Your task to perform on an android device: What's the weather? Image 0: 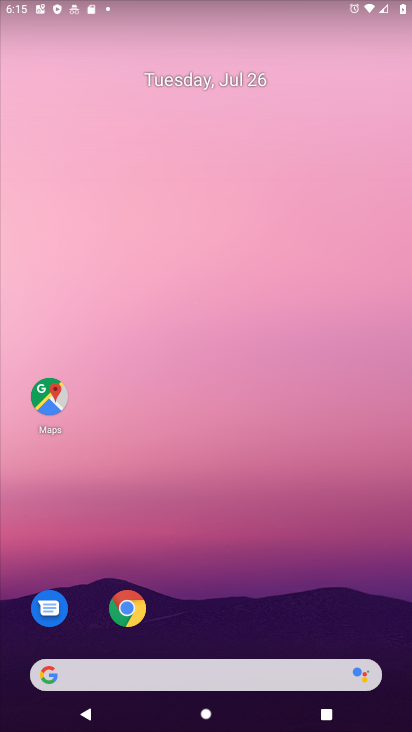
Step 0: press home button
Your task to perform on an android device: What's the weather? Image 1: 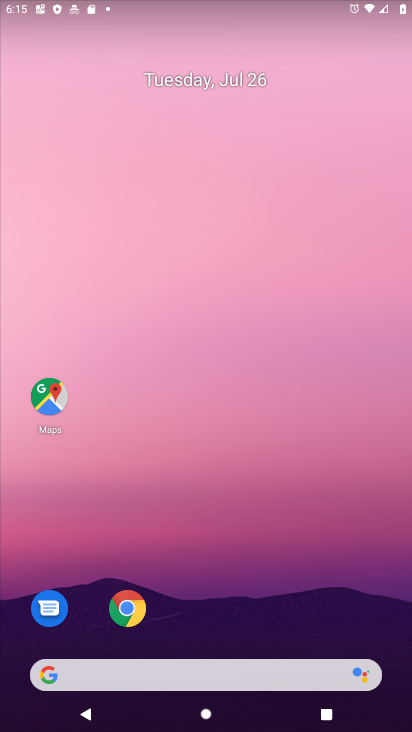
Step 1: click (49, 678)
Your task to perform on an android device: What's the weather? Image 2: 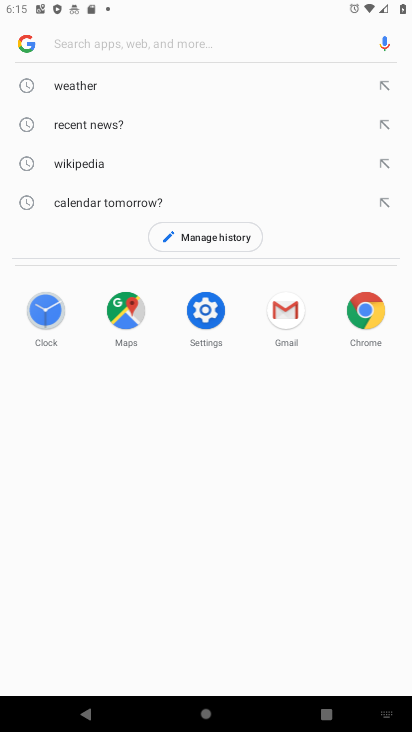
Step 2: click (70, 85)
Your task to perform on an android device: What's the weather? Image 3: 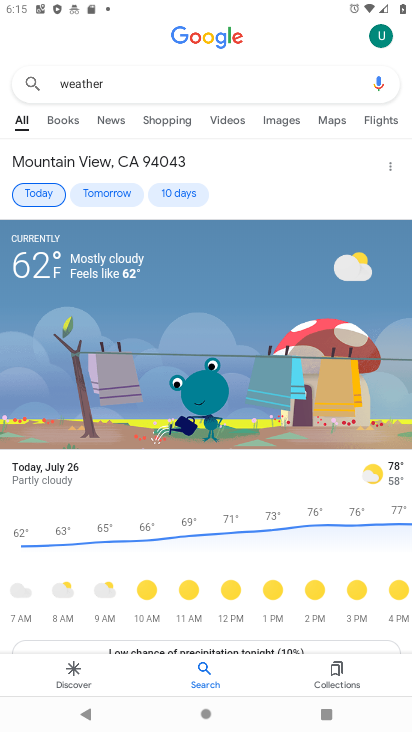
Step 3: task complete